Your task to perform on an android device: see creations saved in the google photos Image 0: 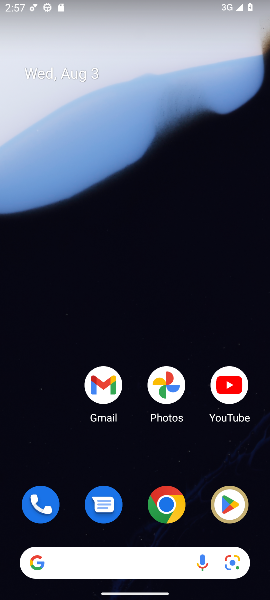
Step 0: drag from (71, 455) to (135, 1)
Your task to perform on an android device: see creations saved in the google photos Image 1: 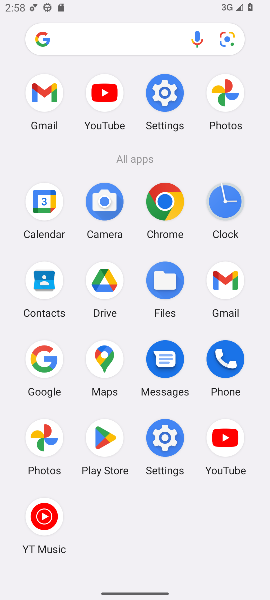
Step 1: click (34, 432)
Your task to perform on an android device: see creations saved in the google photos Image 2: 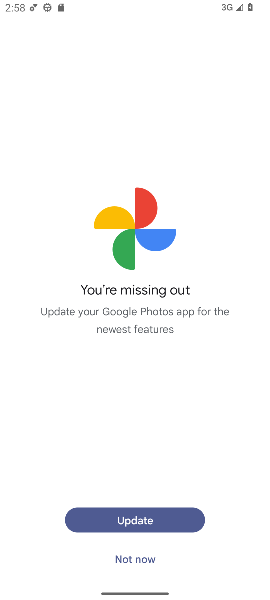
Step 2: click (144, 554)
Your task to perform on an android device: see creations saved in the google photos Image 3: 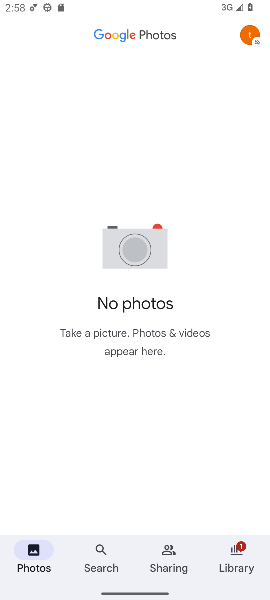
Step 3: click (179, 543)
Your task to perform on an android device: see creations saved in the google photos Image 4: 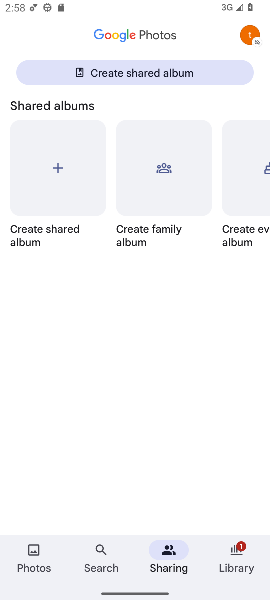
Step 4: drag from (236, 170) to (39, 165)
Your task to perform on an android device: see creations saved in the google photos Image 5: 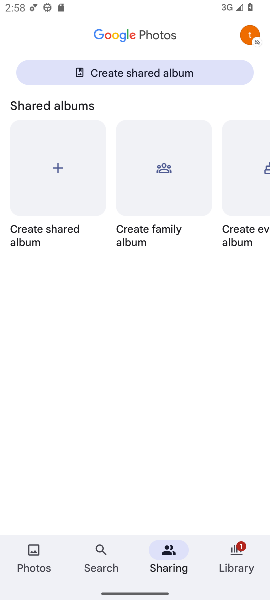
Step 5: drag from (241, 233) to (23, 187)
Your task to perform on an android device: see creations saved in the google photos Image 6: 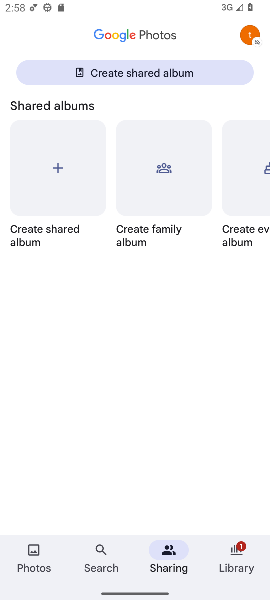
Step 6: drag from (216, 195) to (62, 253)
Your task to perform on an android device: see creations saved in the google photos Image 7: 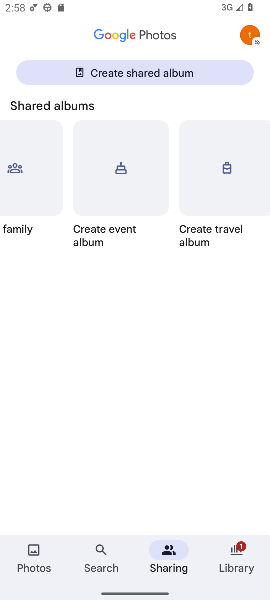
Step 7: click (237, 572)
Your task to perform on an android device: see creations saved in the google photos Image 8: 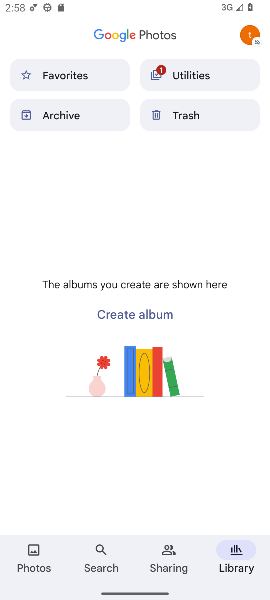
Step 8: task complete